Your task to perform on an android device: set the stopwatch Image 0: 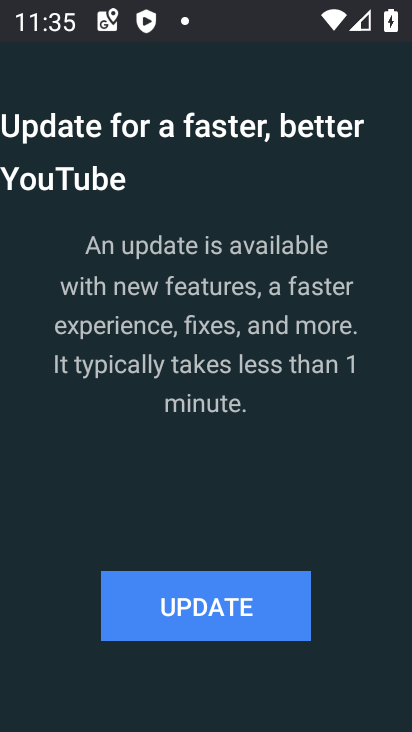
Step 0: press home button
Your task to perform on an android device: set the stopwatch Image 1: 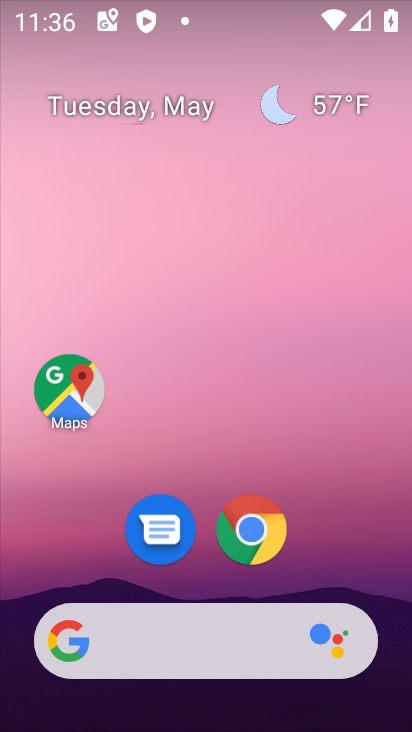
Step 1: drag from (198, 568) to (190, 228)
Your task to perform on an android device: set the stopwatch Image 2: 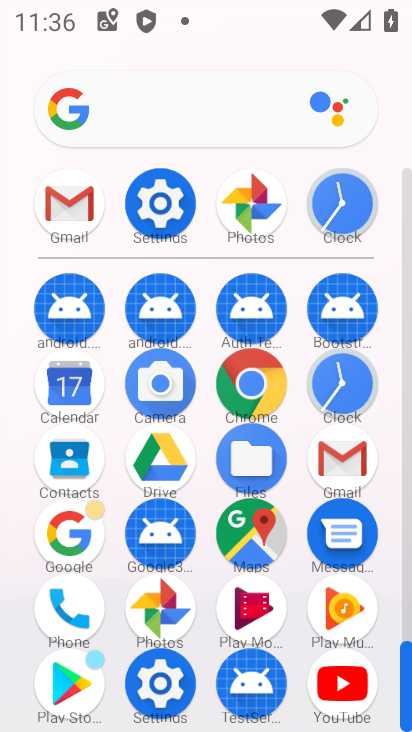
Step 2: click (350, 223)
Your task to perform on an android device: set the stopwatch Image 3: 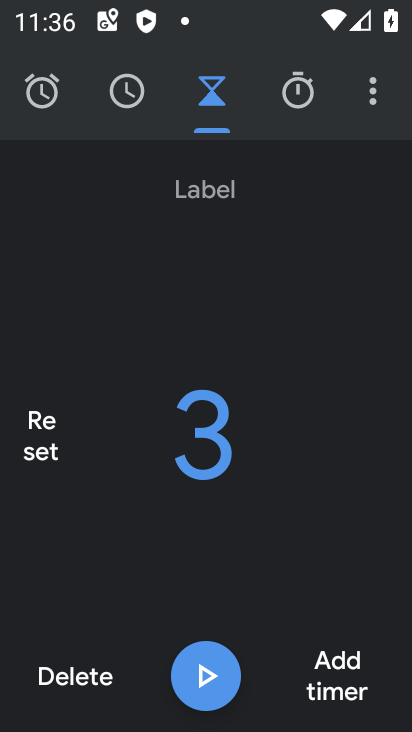
Step 3: click (307, 87)
Your task to perform on an android device: set the stopwatch Image 4: 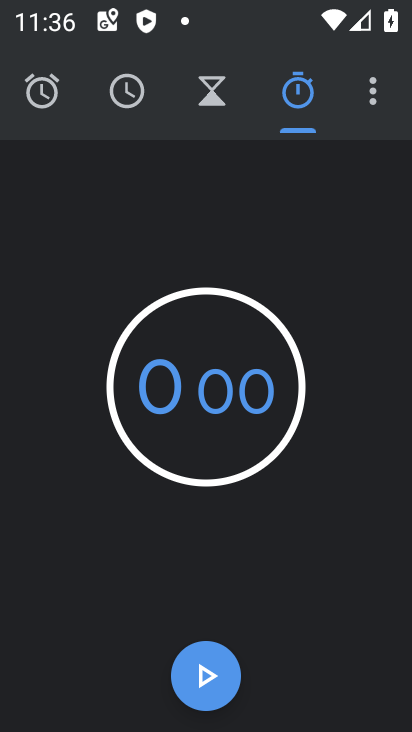
Step 4: click (209, 672)
Your task to perform on an android device: set the stopwatch Image 5: 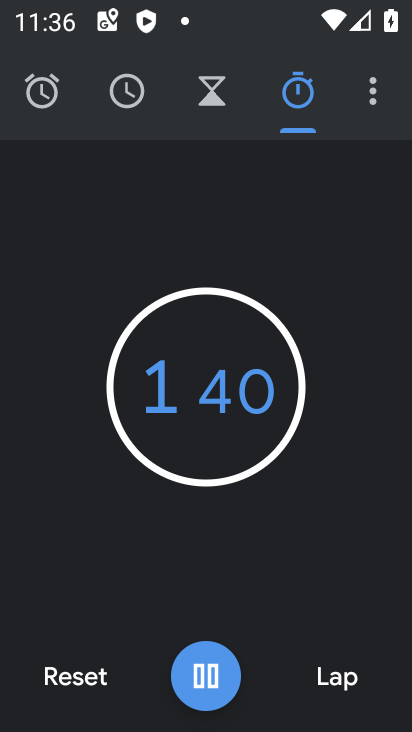
Step 5: task complete